Your task to perform on an android device: Open calendar and show me the fourth week of next month Image 0: 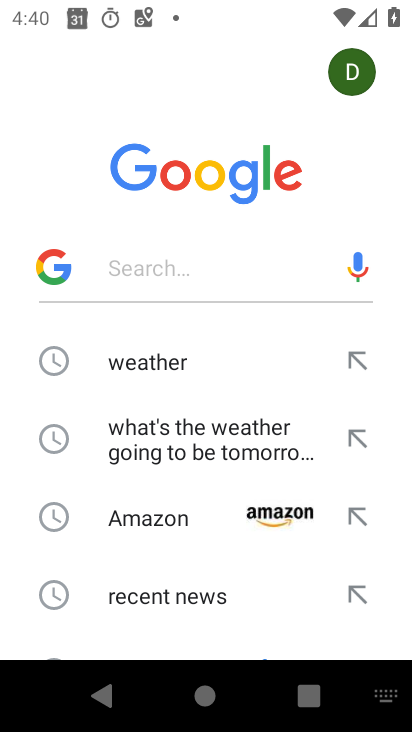
Step 0: press back button
Your task to perform on an android device: Open calendar and show me the fourth week of next month Image 1: 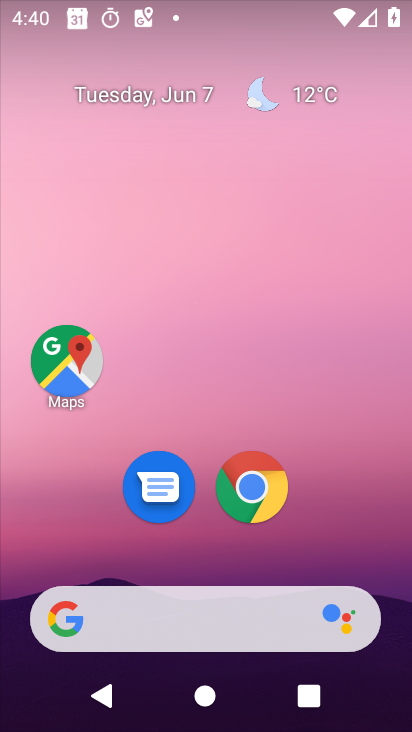
Step 1: drag from (177, 586) to (236, 93)
Your task to perform on an android device: Open calendar and show me the fourth week of next month Image 2: 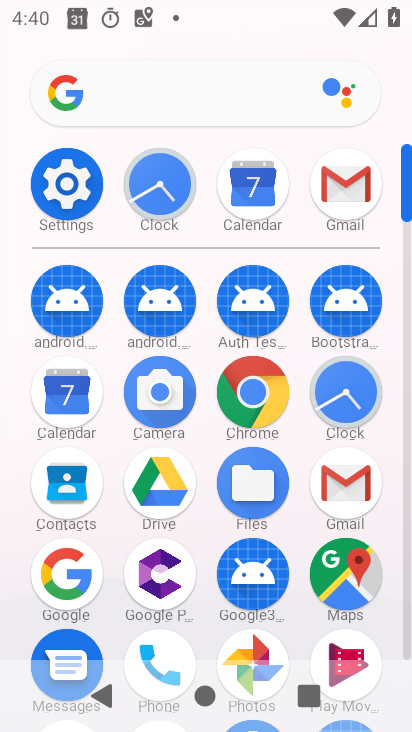
Step 2: click (75, 394)
Your task to perform on an android device: Open calendar and show me the fourth week of next month Image 3: 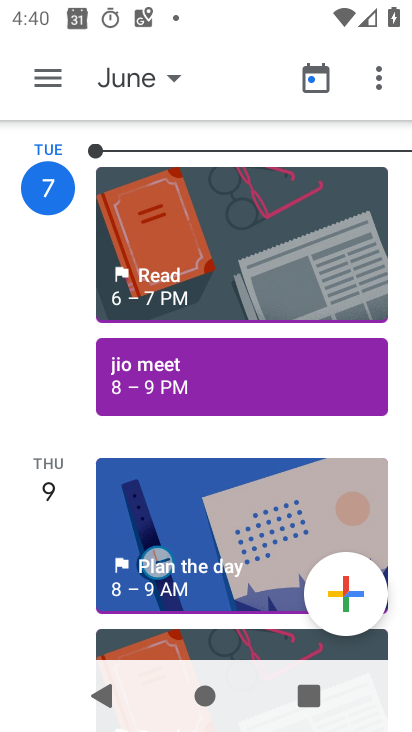
Step 3: click (133, 80)
Your task to perform on an android device: Open calendar and show me the fourth week of next month Image 4: 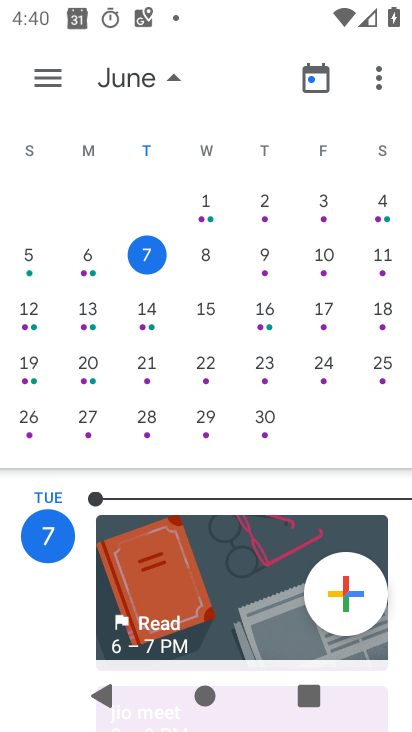
Step 4: drag from (371, 299) to (109, 272)
Your task to perform on an android device: Open calendar and show me the fourth week of next month Image 5: 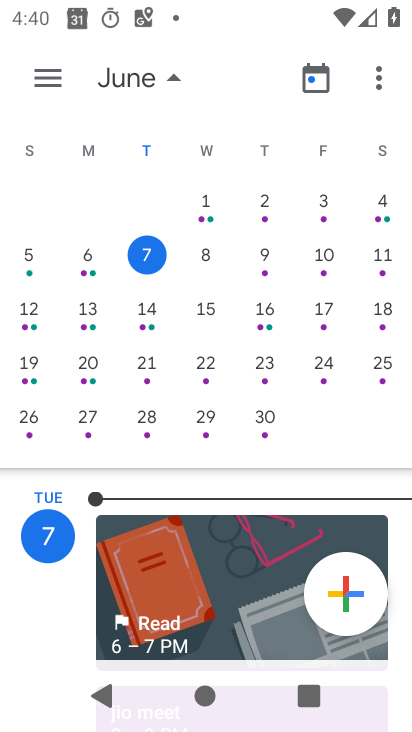
Step 5: drag from (368, 314) to (65, 320)
Your task to perform on an android device: Open calendar and show me the fourth week of next month Image 6: 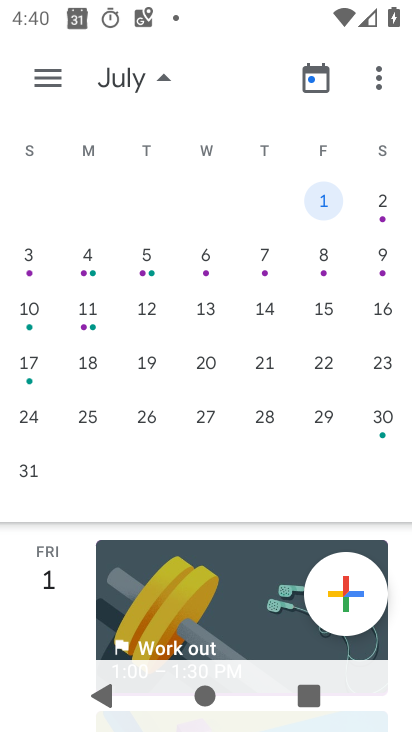
Step 6: click (100, 358)
Your task to perform on an android device: Open calendar and show me the fourth week of next month Image 7: 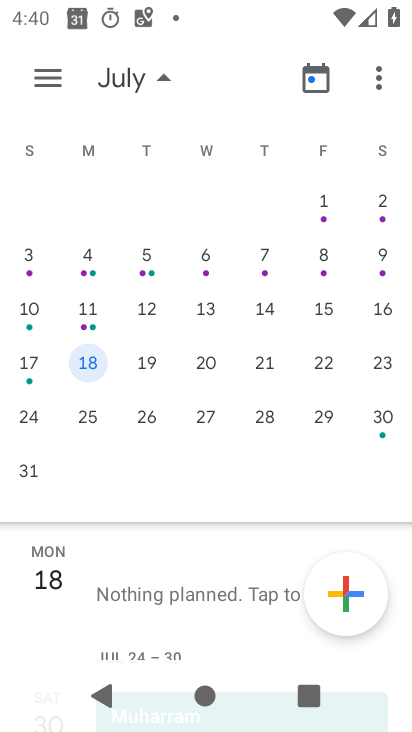
Step 7: task complete